Your task to perform on an android device: Go to Google maps Image 0: 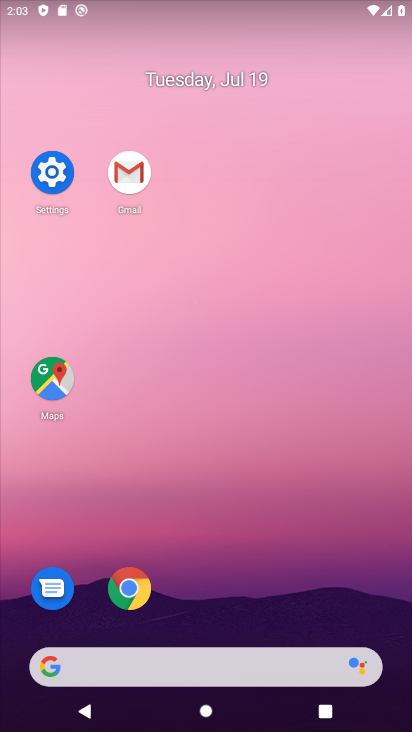
Step 0: drag from (261, 615) to (313, 131)
Your task to perform on an android device: Go to Google maps Image 1: 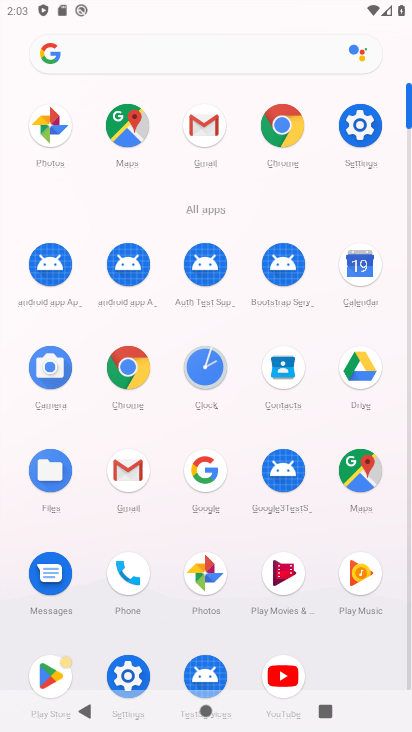
Step 1: click (128, 126)
Your task to perform on an android device: Go to Google maps Image 2: 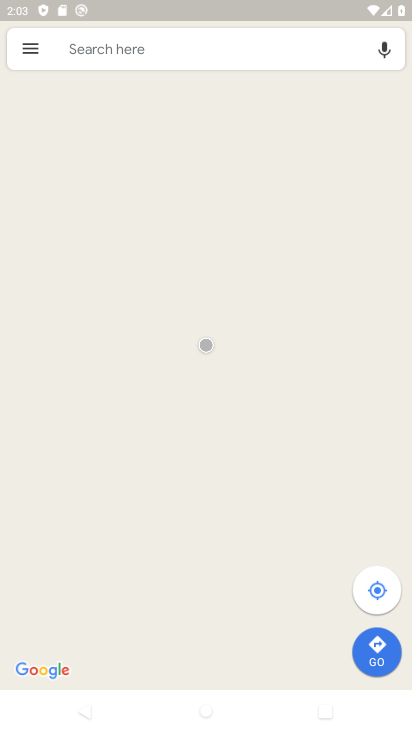
Step 2: task complete